Your task to perform on an android device: change text size in settings app Image 0: 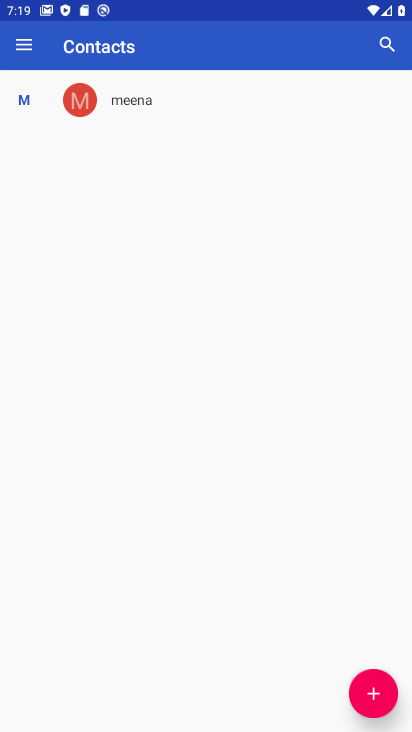
Step 0: press home button
Your task to perform on an android device: change text size in settings app Image 1: 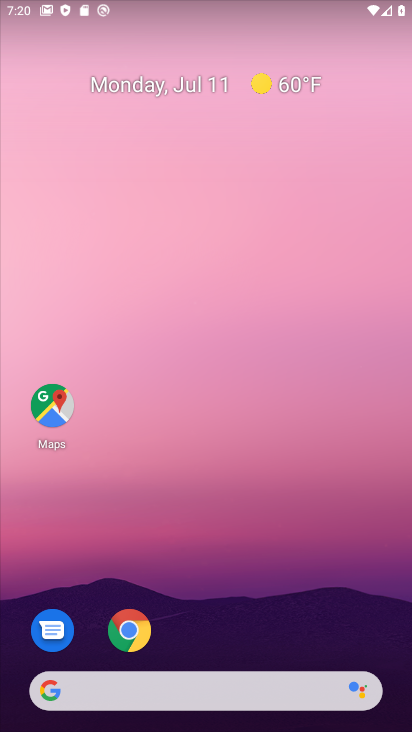
Step 1: drag from (335, 644) to (315, 91)
Your task to perform on an android device: change text size in settings app Image 2: 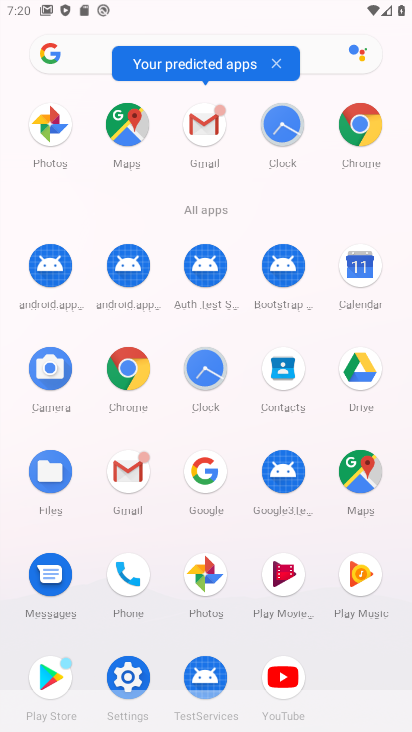
Step 2: click (126, 676)
Your task to perform on an android device: change text size in settings app Image 3: 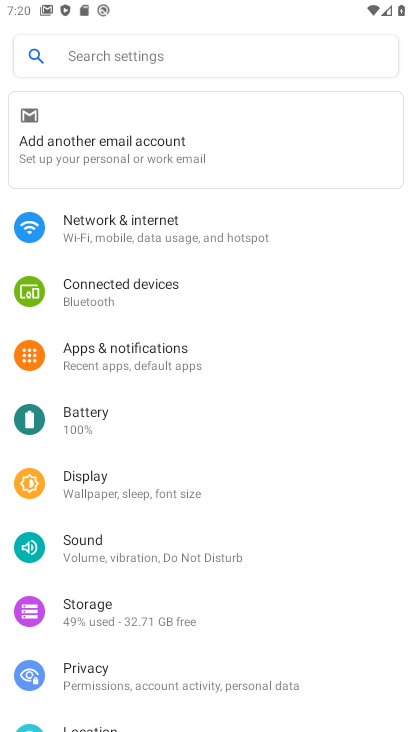
Step 3: click (92, 478)
Your task to perform on an android device: change text size in settings app Image 4: 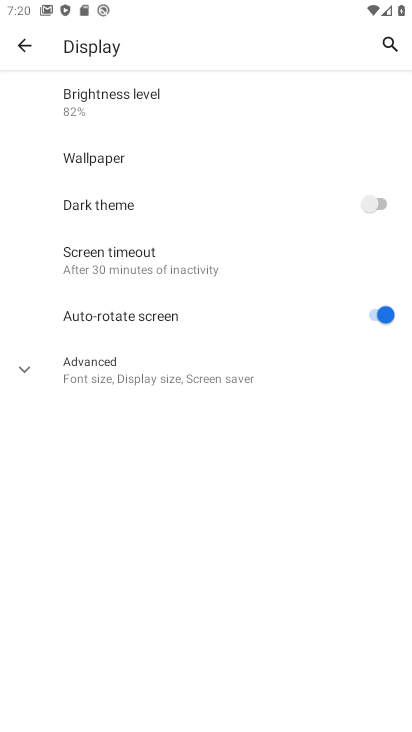
Step 4: click (27, 371)
Your task to perform on an android device: change text size in settings app Image 5: 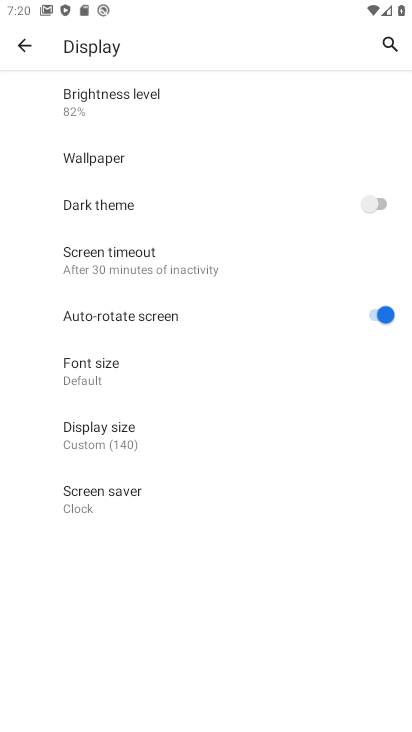
Step 5: click (85, 369)
Your task to perform on an android device: change text size in settings app Image 6: 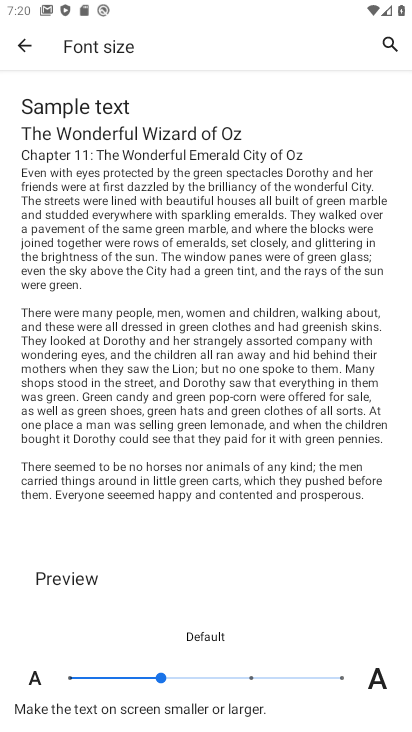
Step 6: click (247, 677)
Your task to perform on an android device: change text size in settings app Image 7: 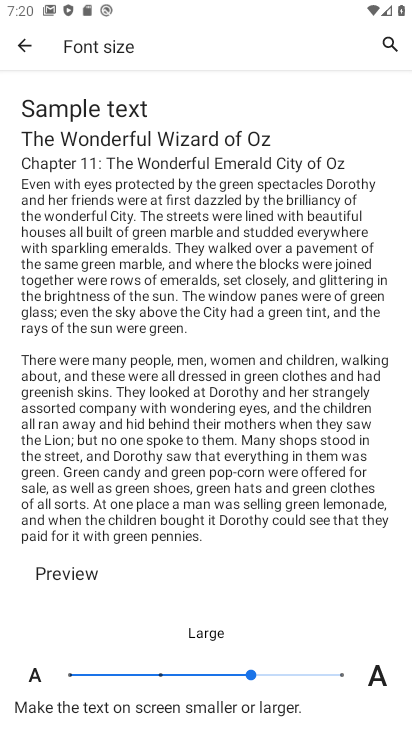
Step 7: task complete